Your task to perform on an android device: see creations saved in the google photos Image 0: 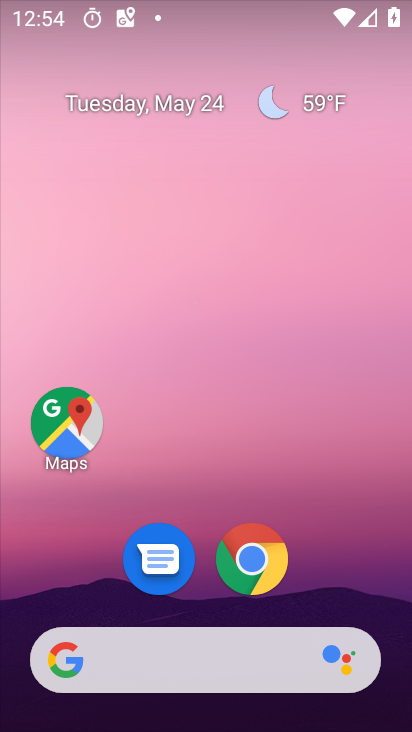
Step 0: drag from (388, 690) to (368, 237)
Your task to perform on an android device: see creations saved in the google photos Image 1: 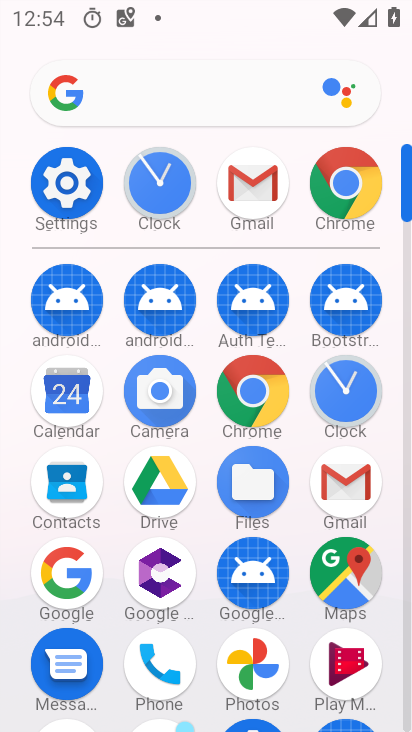
Step 1: click (250, 666)
Your task to perform on an android device: see creations saved in the google photos Image 2: 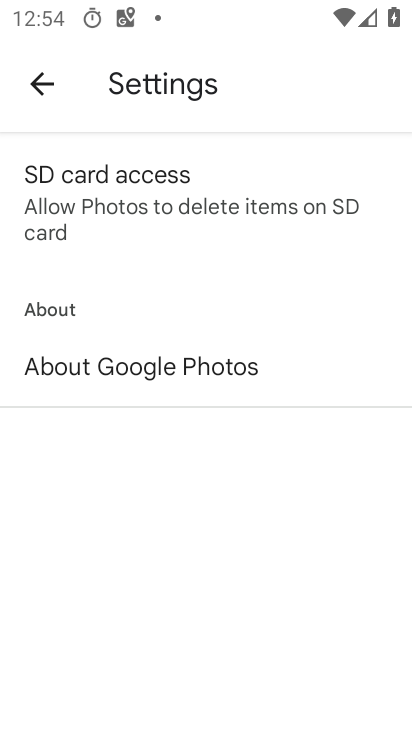
Step 2: click (28, 86)
Your task to perform on an android device: see creations saved in the google photos Image 3: 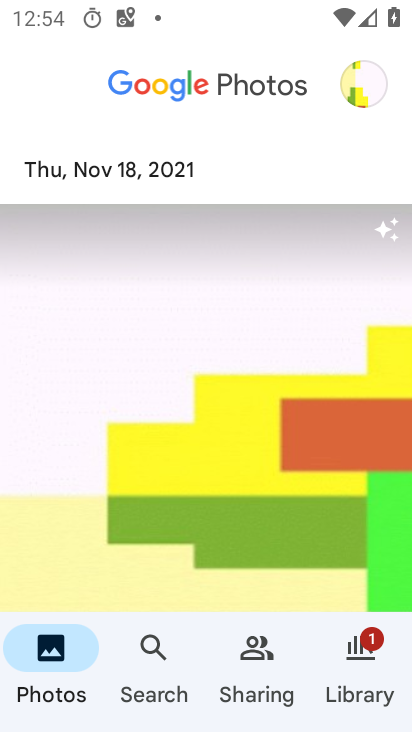
Step 3: click (58, 658)
Your task to perform on an android device: see creations saved in the google photos Image 4: 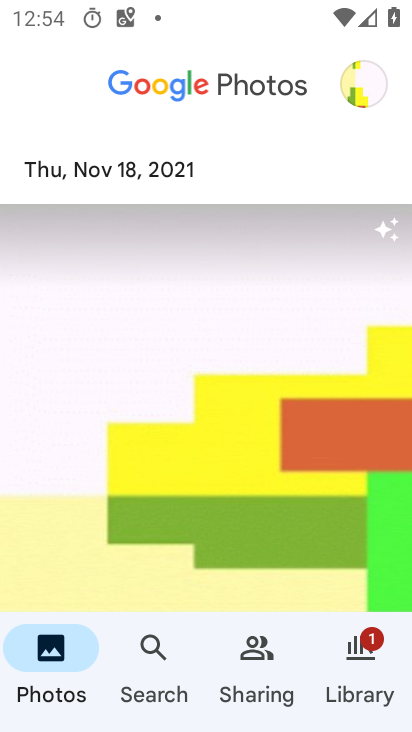
Step 4: task complete